Your task to perform on an android device: Turn off the flashlight Image 0: 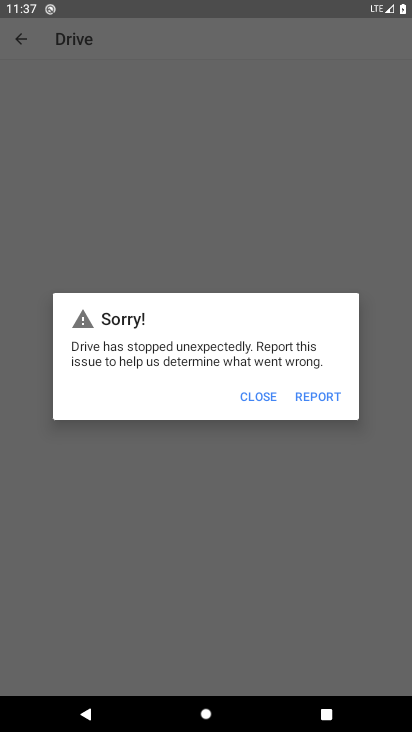
Step 0: press home button
Your task to perform on an android device: Turn off the flashlight Image 1: 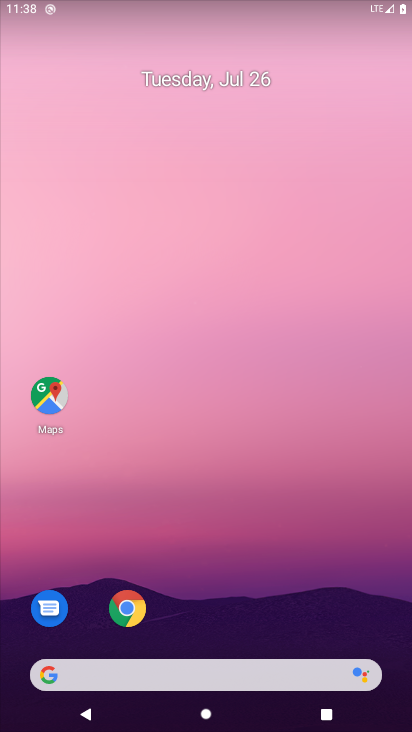
Step 1: task complete